Your task to perform on an android device: Empty the shopping cart on bestbuy.com. Search for amazon basics triple a on bestbuy.com, select the first entry, add it to the cart, then select checkout. Image 0: 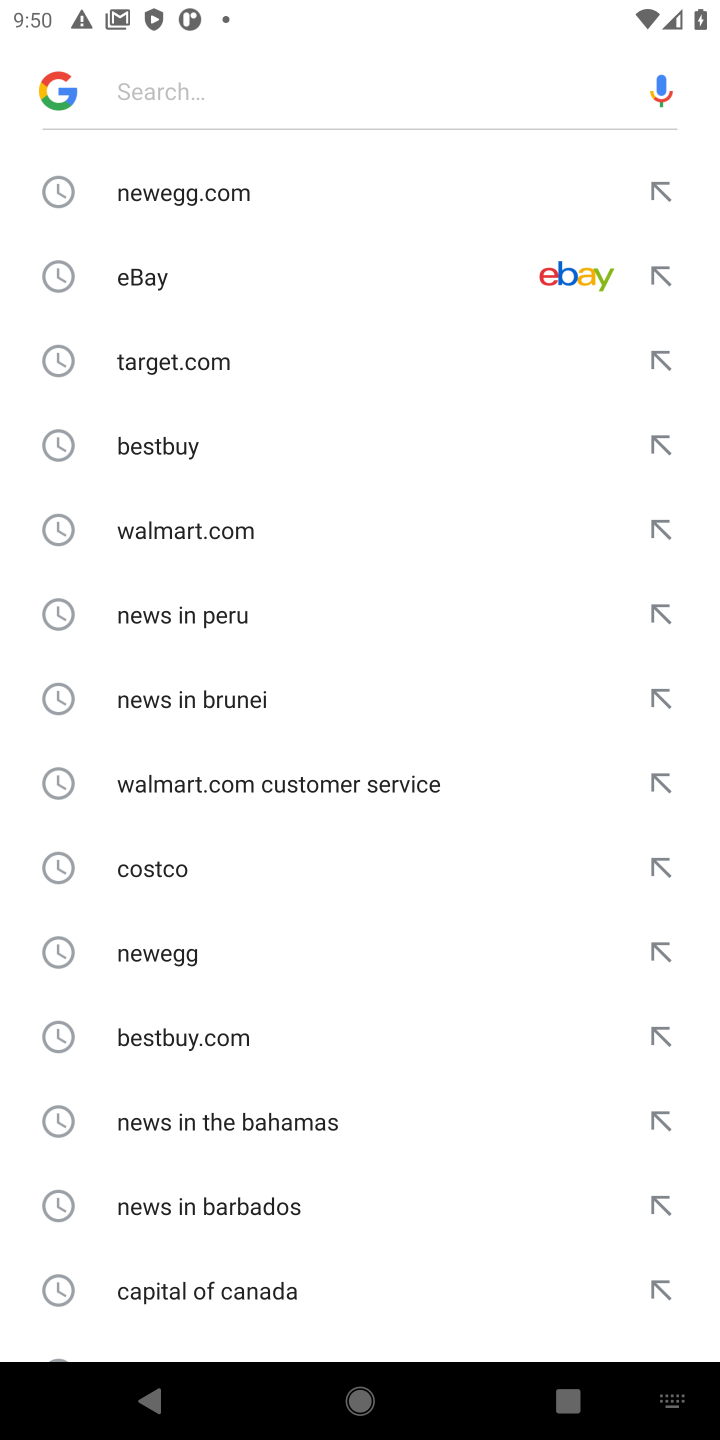
Step 0: click (146, 446)
Your task to perform on an android device: Empty the shopping cart on bestbuy.com. Search for amazon basics triple a on bestbuy.com, select the first entry, add it to the cart, then select checkout. Image 1: 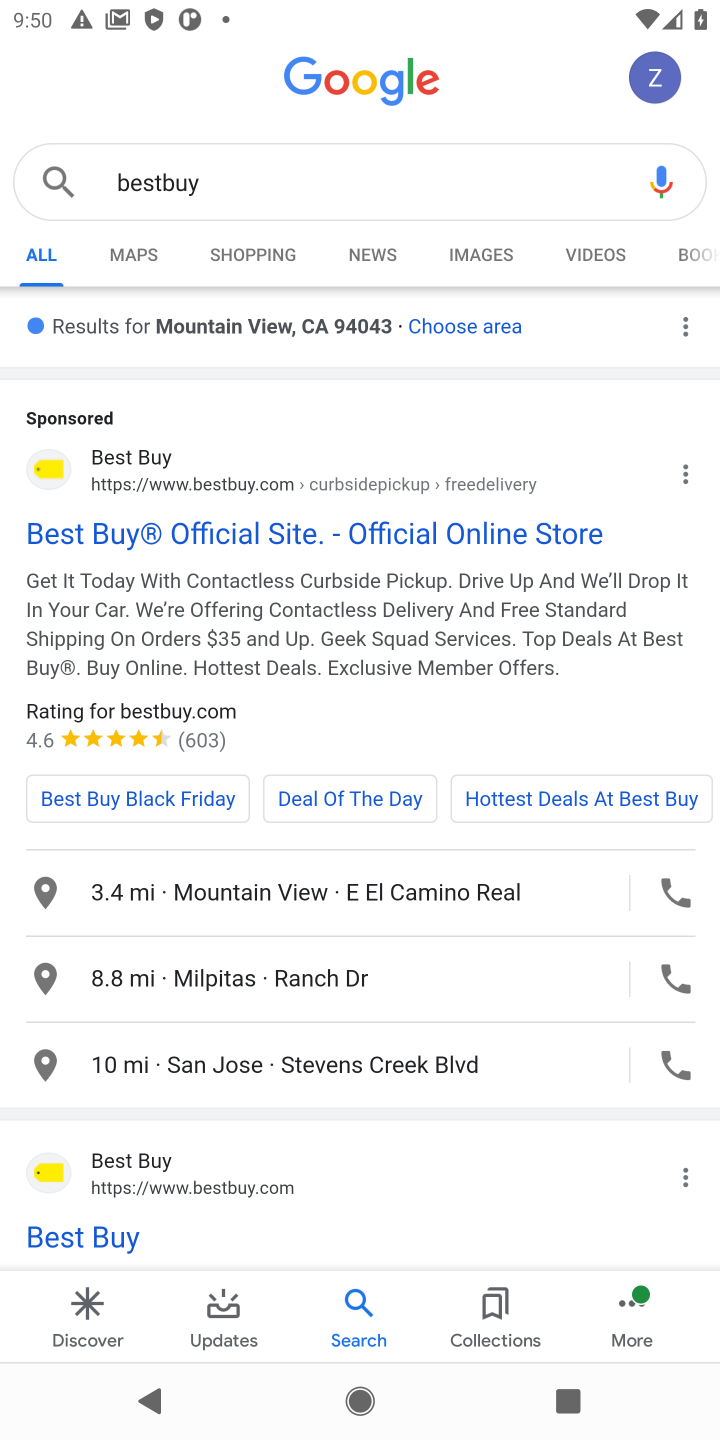
Step 1: click (218, 537)
Your task to perform on an android device: Empty the shopping cart on bestbuy.com. Search for amazon basics triple a on bestbuy.com, select the first entry, add it to the cart, then select checkout. Image 2: 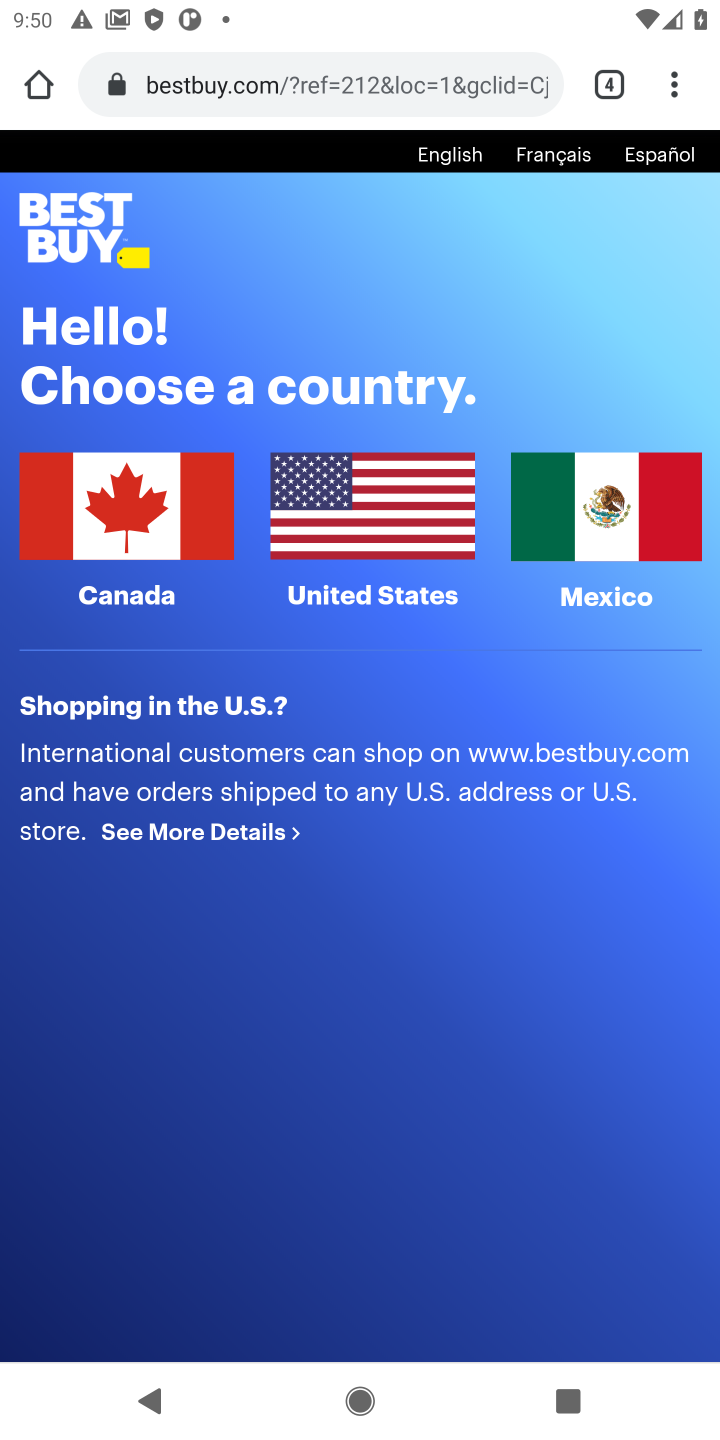
Step 2: click (337, 508)
Your task to perform on an android device: Empty the shopping cart on bestbuy.com. Search for amazon basics triple a on bestbuy.com, select the first entry, add it to the cart, then select checkout. Image 3: 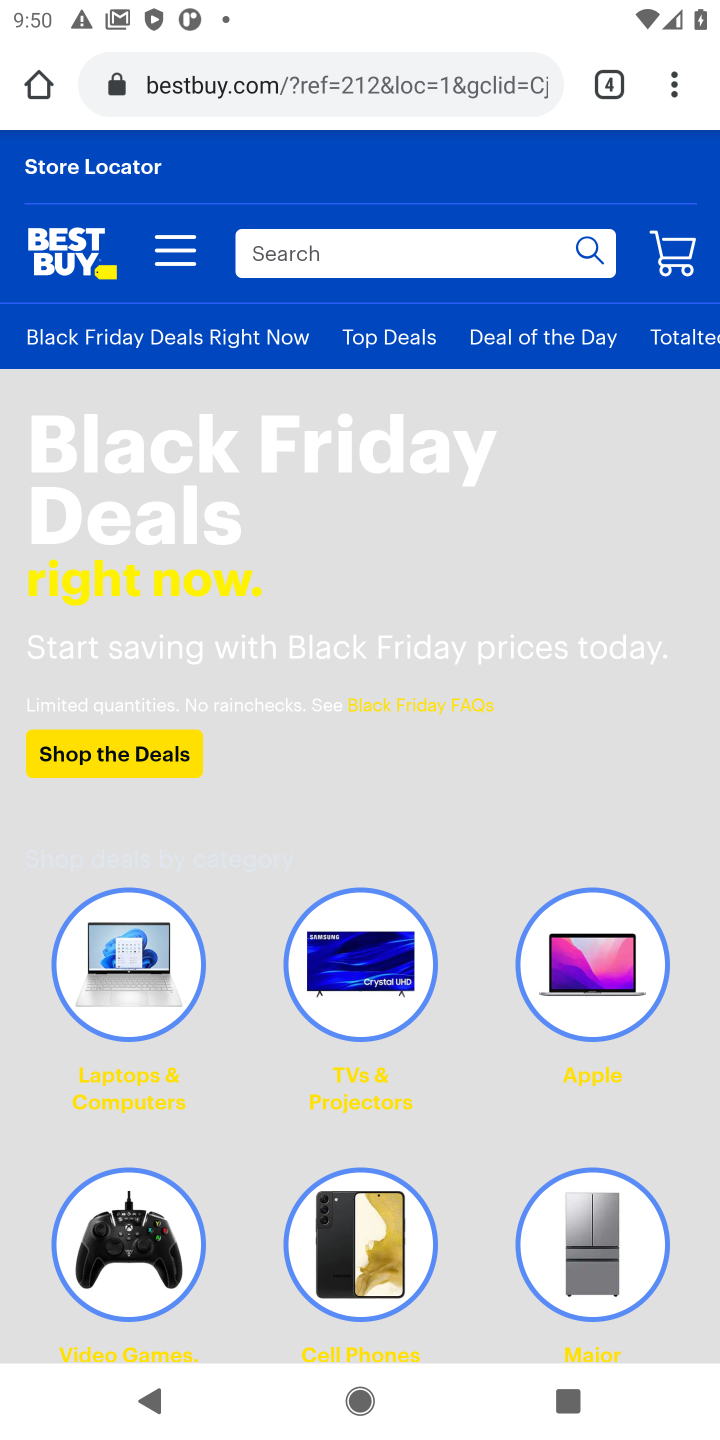
Step 3: click (340, 247)
Your task to perform on an android device: Empty the shopping cart on bestbuy.com. Search for amazon basics triple a on bestbuy.com, select the first entry, add it to the cart, then select checkout. Image 4: 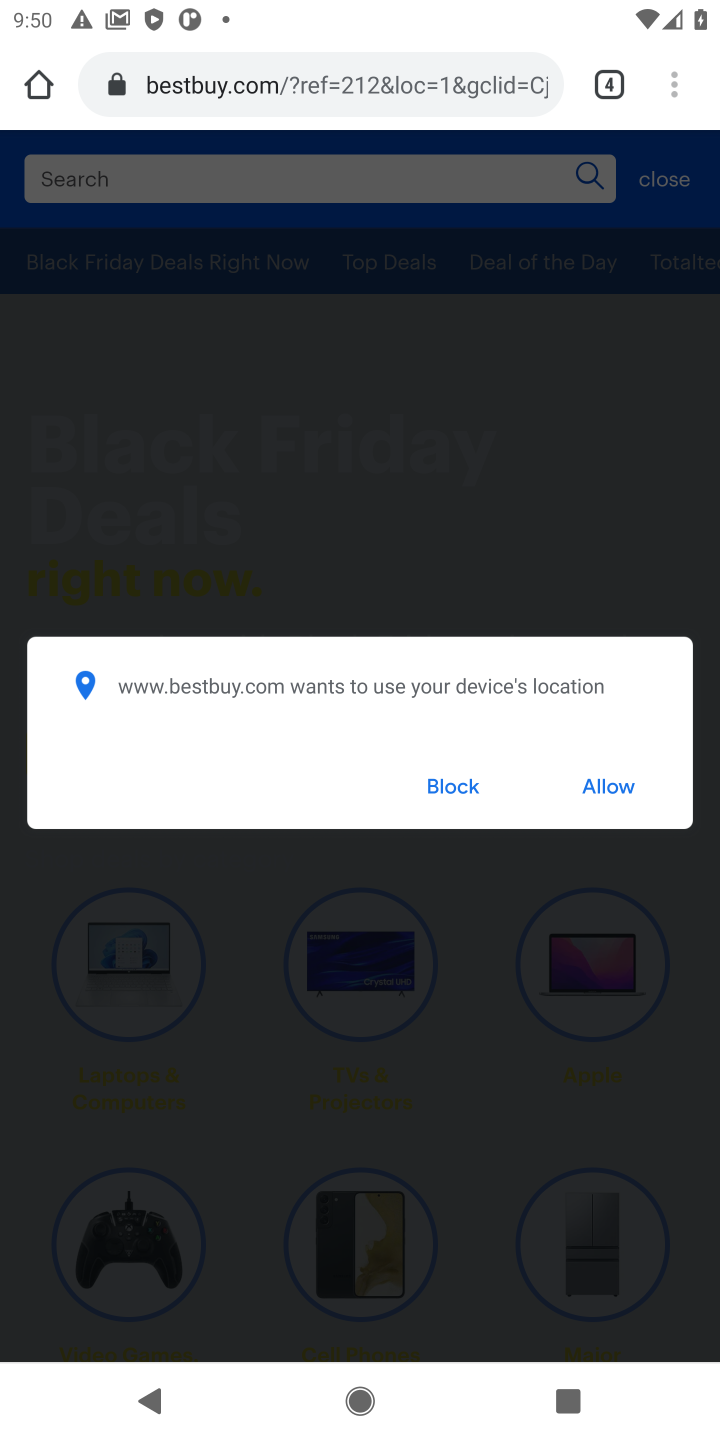
Step 4: click (597, 782)
Your task to perform on an android device: Empty the shopping cart on bestbuy.com. Search for amazon basics triple a on bestbuy.com, select the first entry, add it to the cart, then select checkout. Image 5: 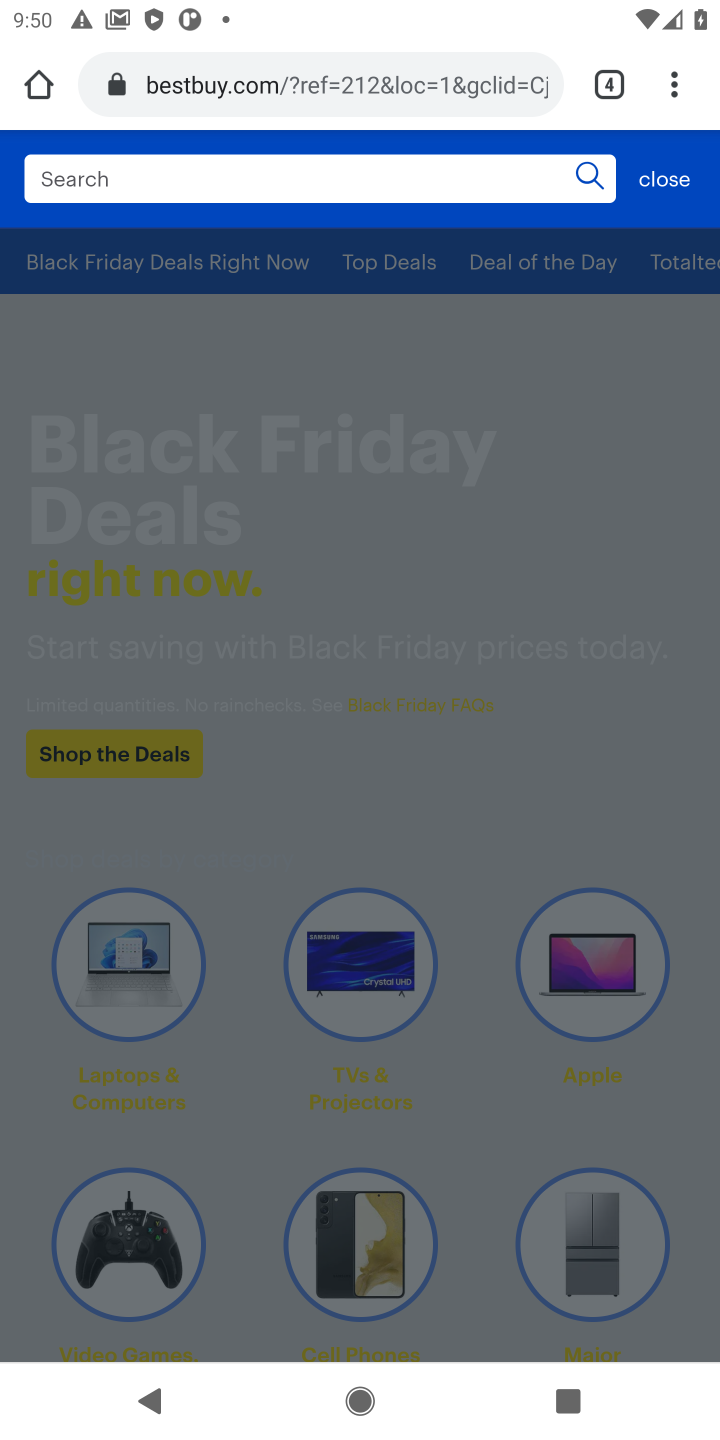
Step 5: click (652, 181)
Your task to perform on an android device: Empty the shopping cart on bestbuy.com. Search for amazon basics triple a on bestbuy.com, select the first entry, add it to the cart, then select checkout. Image 6: 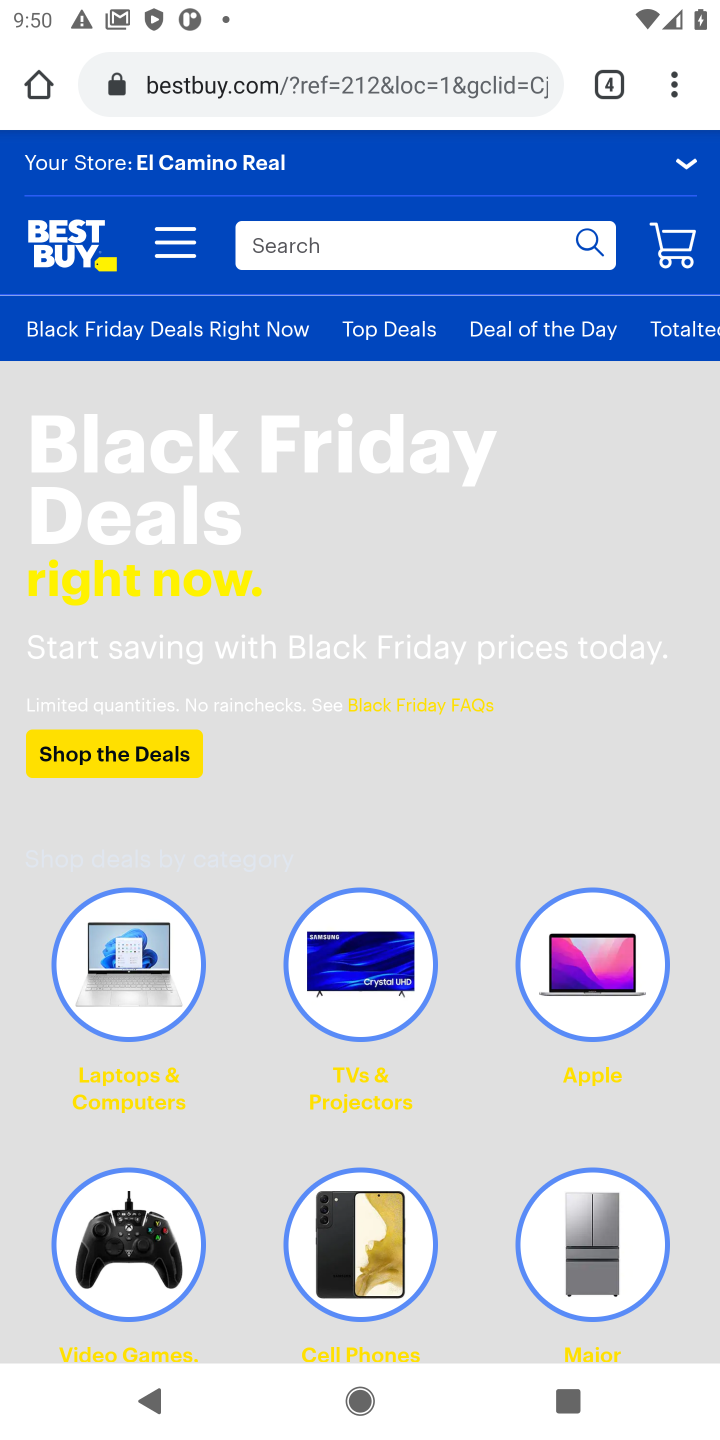
Step 6: click (321, 248)
Your task to perform on an android device: Empty the shopping cart on bestbuy.com. Search for amazon basics triple a on bestbuy.com, select the first entry, add it to the cart, then select checkout. Image 7: 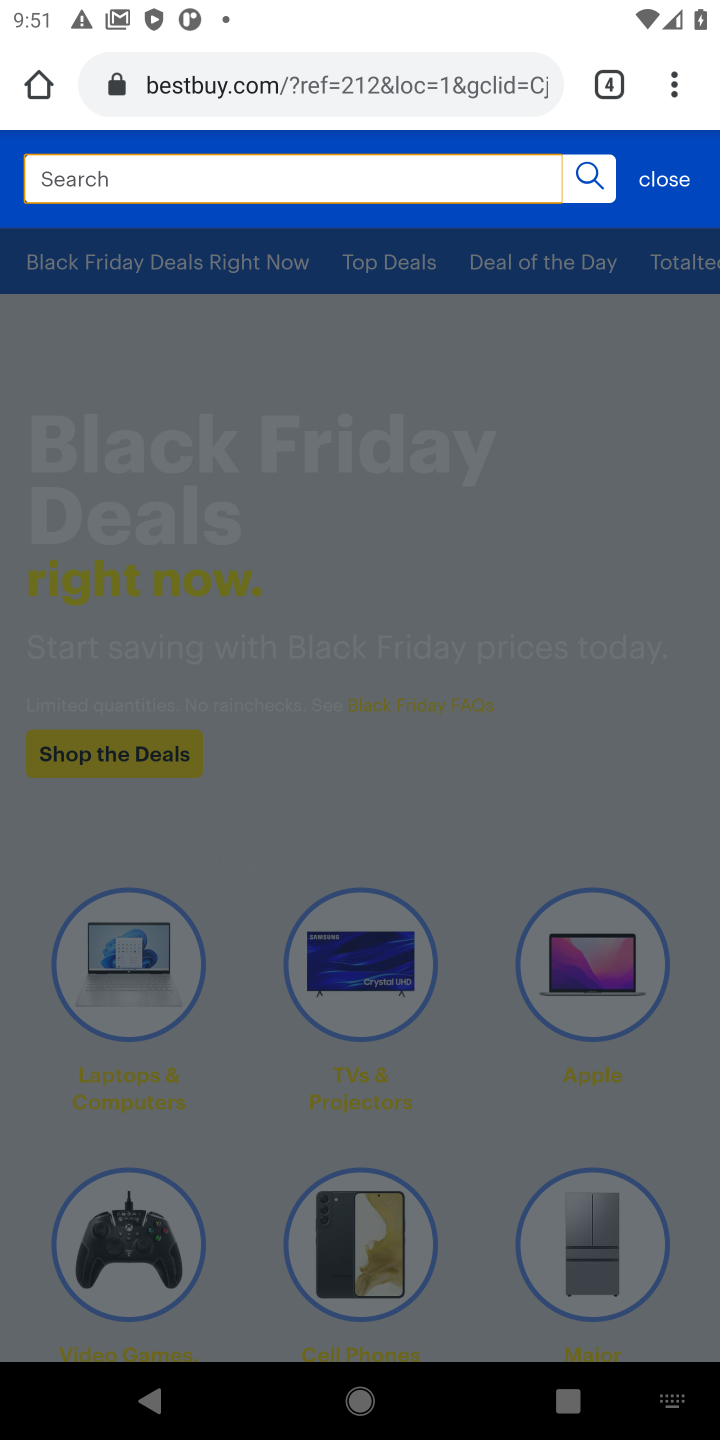
Step 7: type "amazon basics triple a"
Your task to perform on an android device: Empty the shopping cart on bestbuy.com. Search for amazon basics triple a on bestbuy.com, select the first entry, add it to the cart, then select checkout. Image 8: 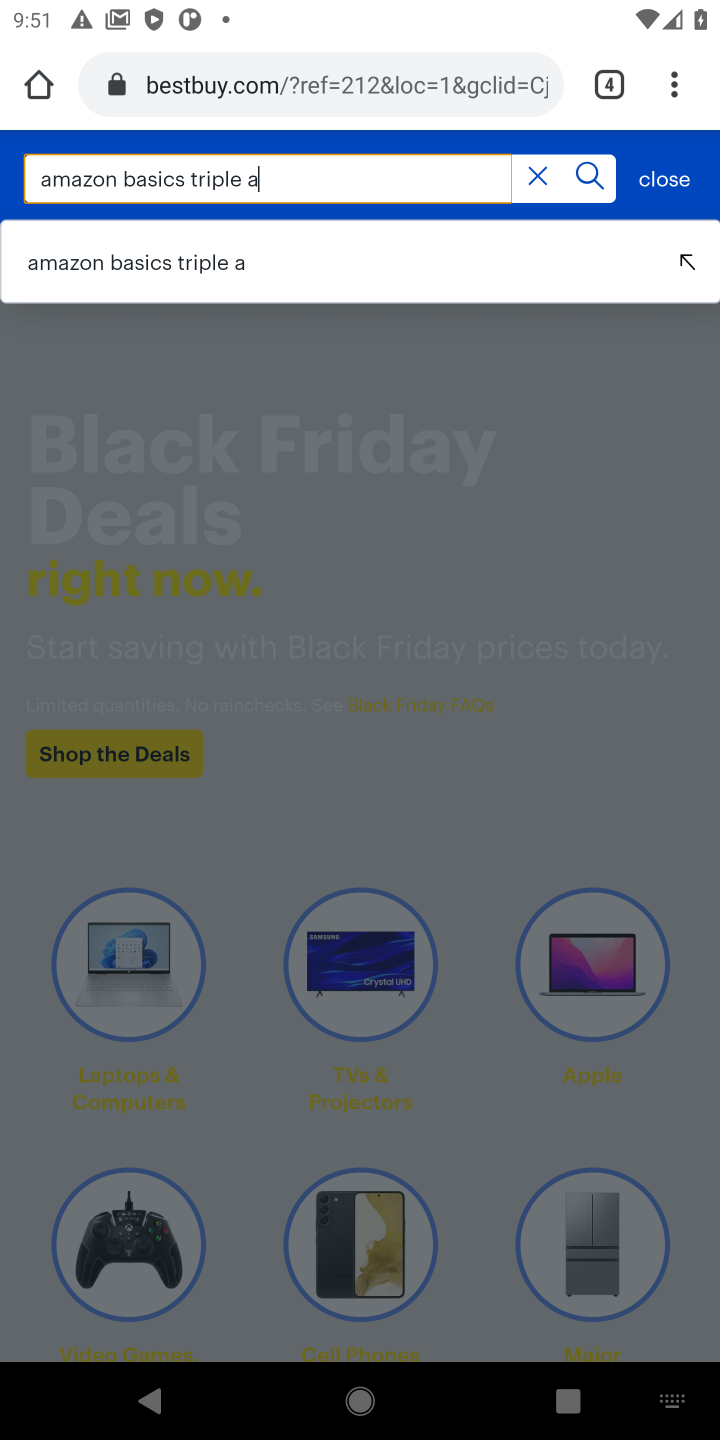
Step 8: click (251, 265)
Your task to perform on an android device: Empty the shopping cart on bestbuy.com. Search for amazon basics triple a on bestbuy.com, select the first entry, add it to the cart, then select checkout. Image 9: 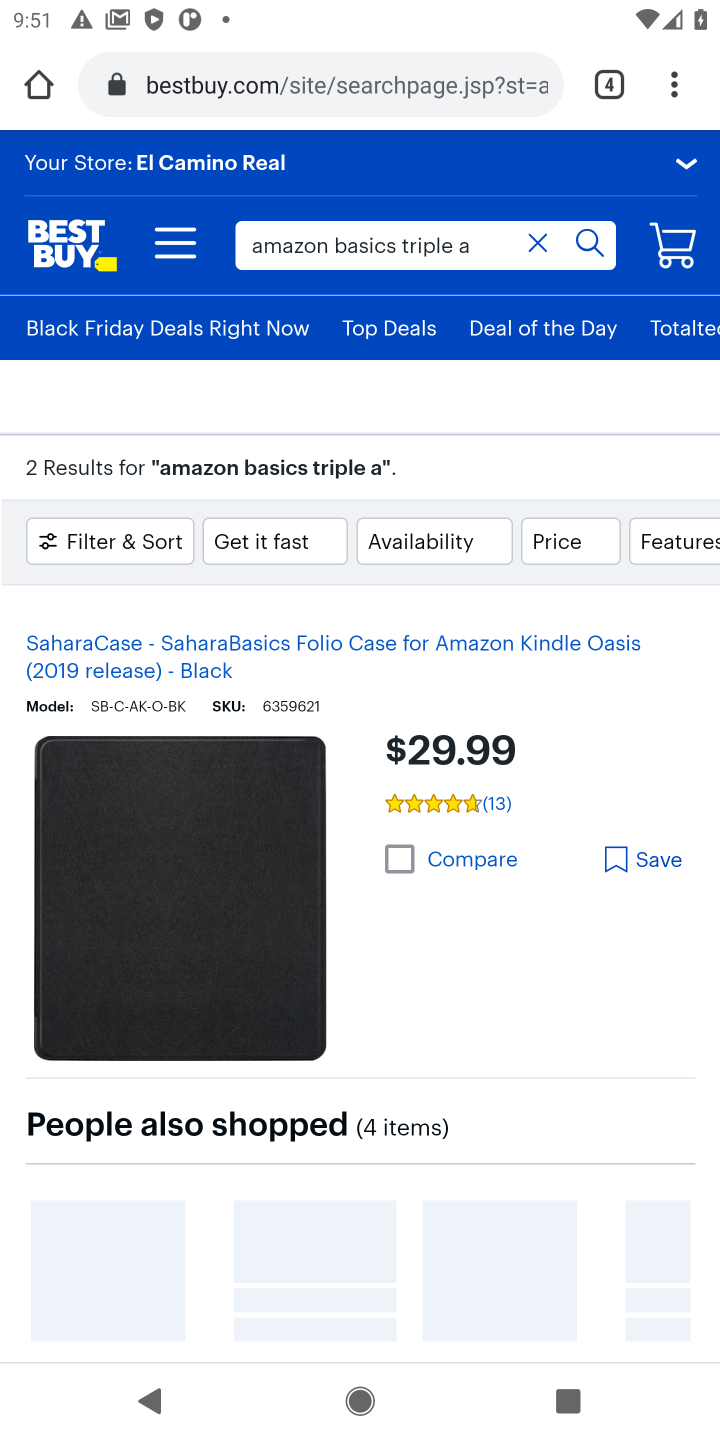
Step 9: click (463, 759)
Your task to perform on an android device: Empty the shopping cart on bestbuy.com. Search for amazon basics triple a on bestbuy.com, select the first entry, add it to the cart, then select checkout. Image 10: 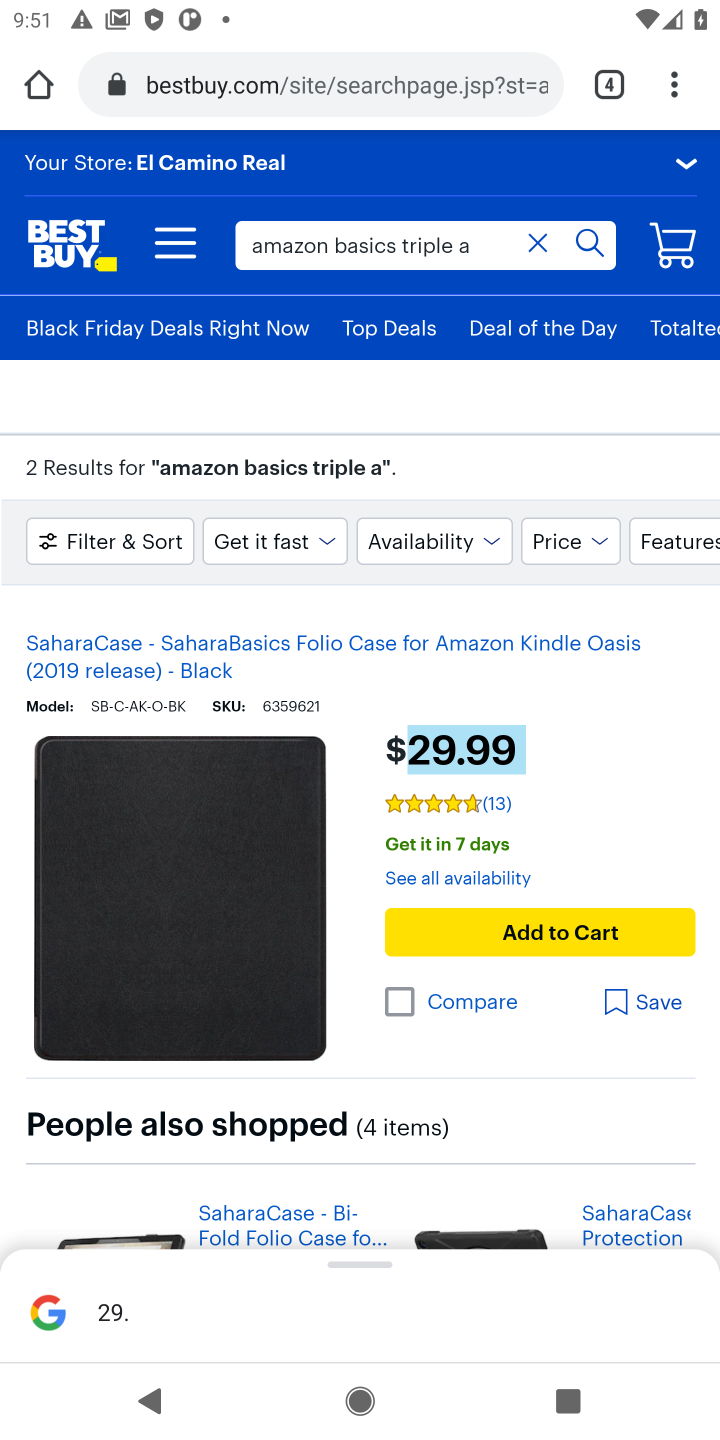
Step 10: click (515, 930)
Your task to perform on an android device: Empty the shopping cart on bestbuy.com. Search for amazon basics triple a on bestbuy.com, select the first entry, add it to the cart, then select checkout. Image 11: 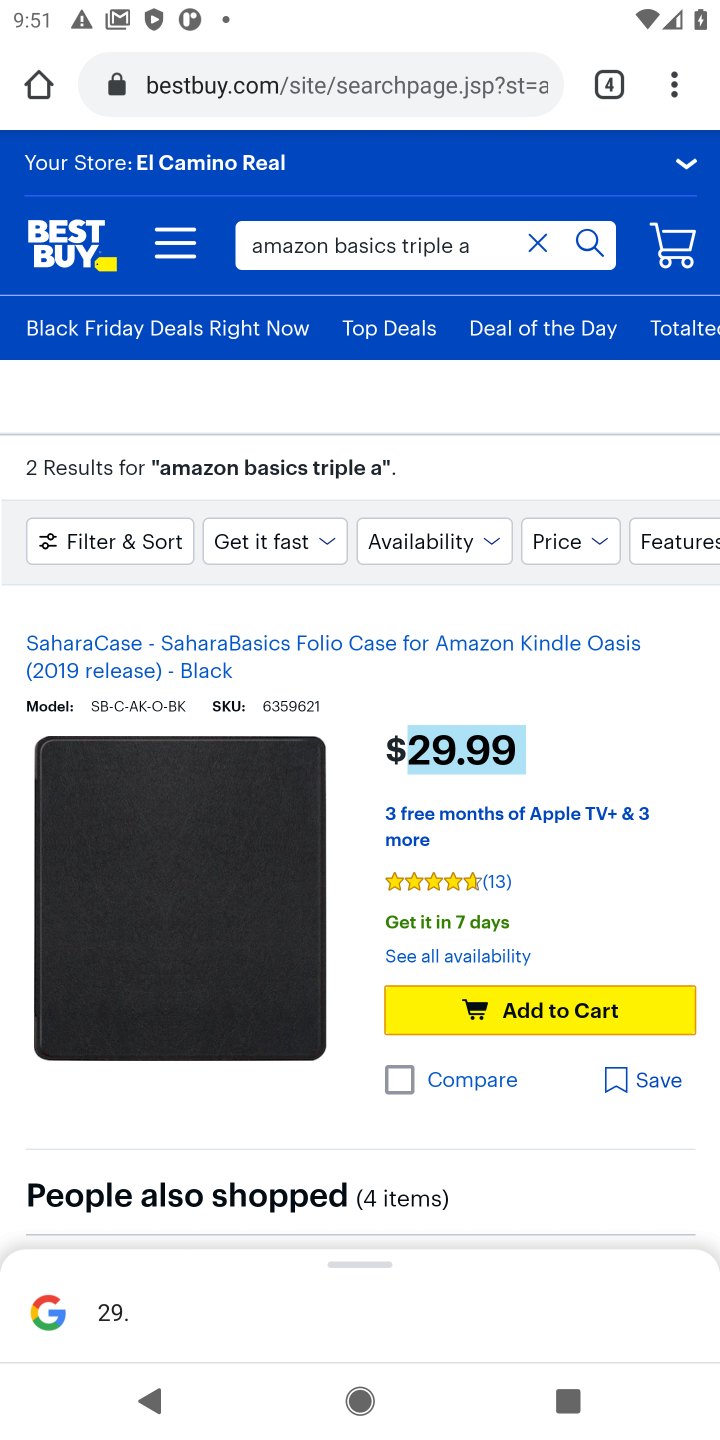
Step 11: click (513, 929)
Your task to perform on an android device: Empty the shopping cart on bestbuy.com. Search for amazon basics triple a on bestbuy.com, select the first entry, add it to the cart, then select checkout. Image 12: 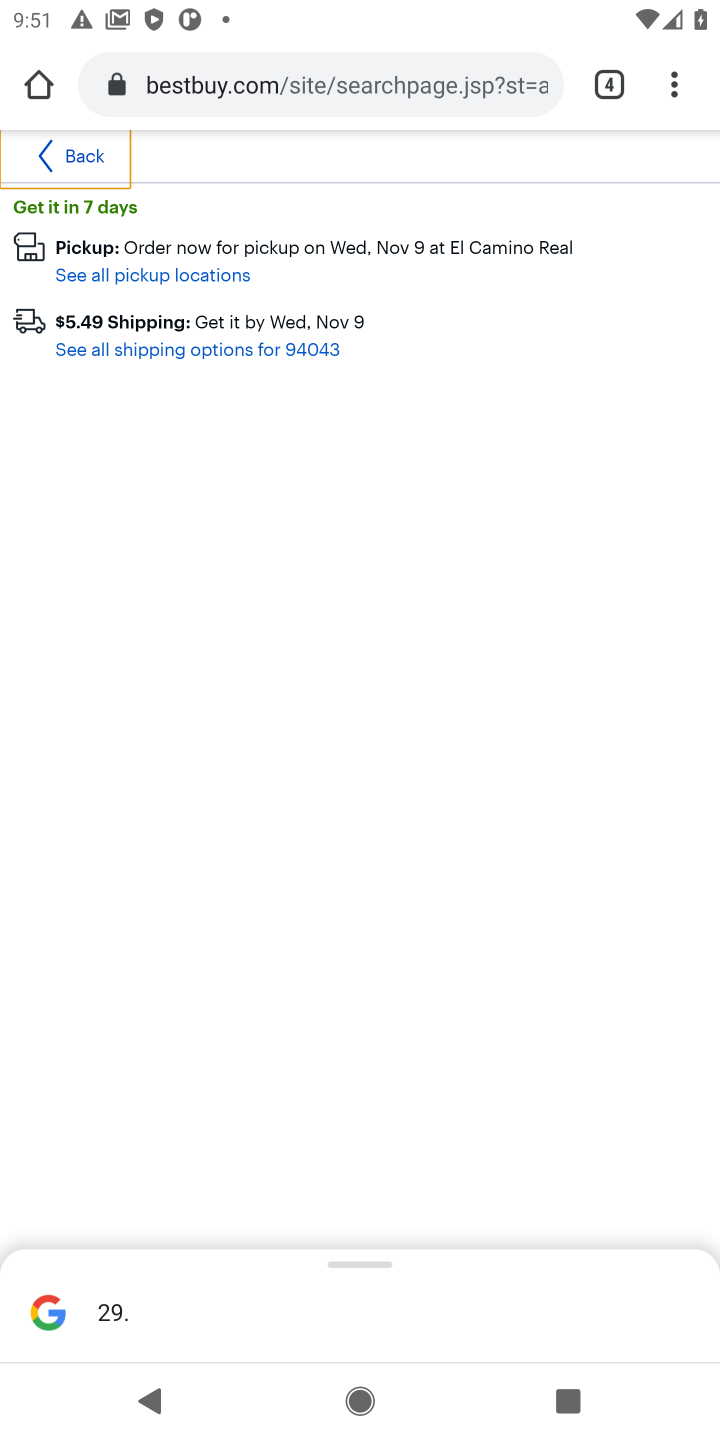
Step 12: click (63, 150)
Your task to perform on an android device: Empty the shopping cart on bestbuy.com. Search for amazon basics triple a on bestbuy.com, select the first entry, add it to the cart, then select checkout. Image 13: 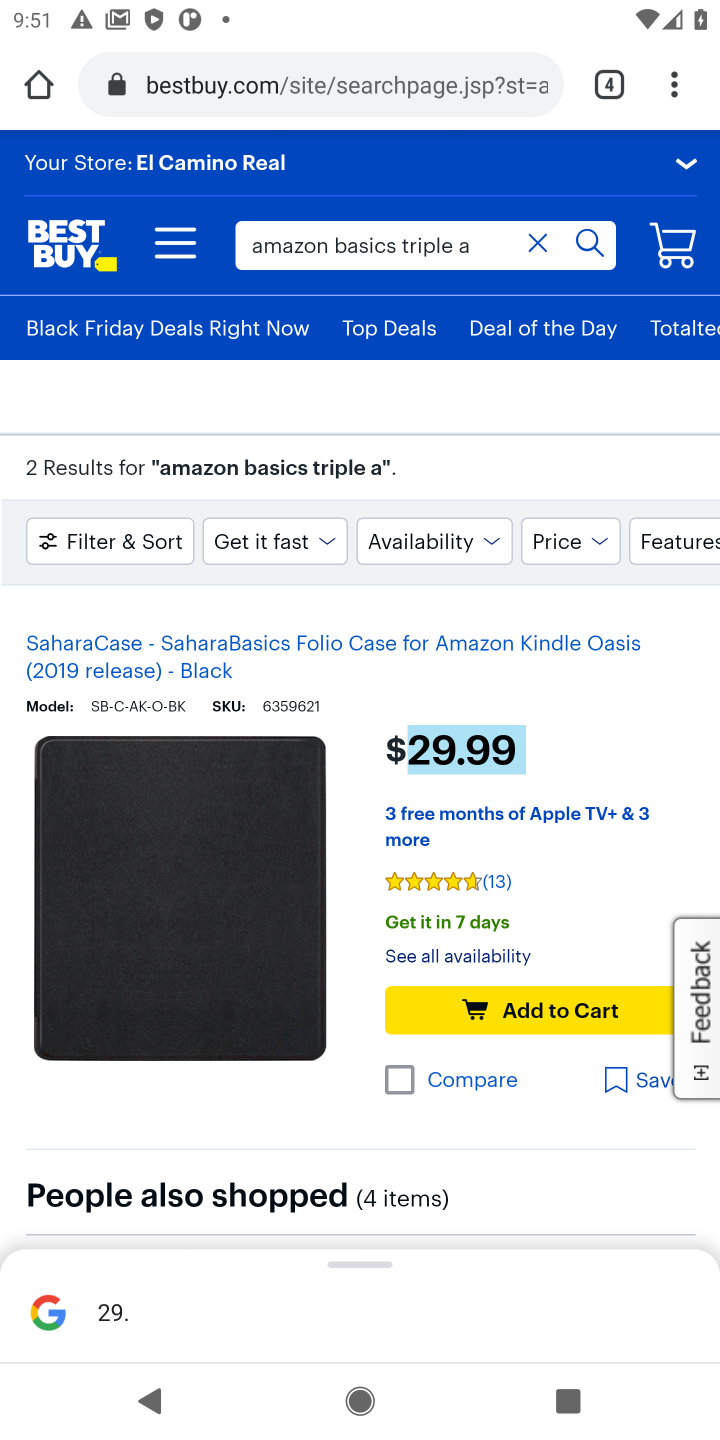
Step 13: click (484, 1009)
Your task to perform on an android device: Empty the shopping cart on bestbuy.com. Search for amazon basics triple a on bestbuy.com, select the first entry, add it to the cart, then select checkout. Image 14: 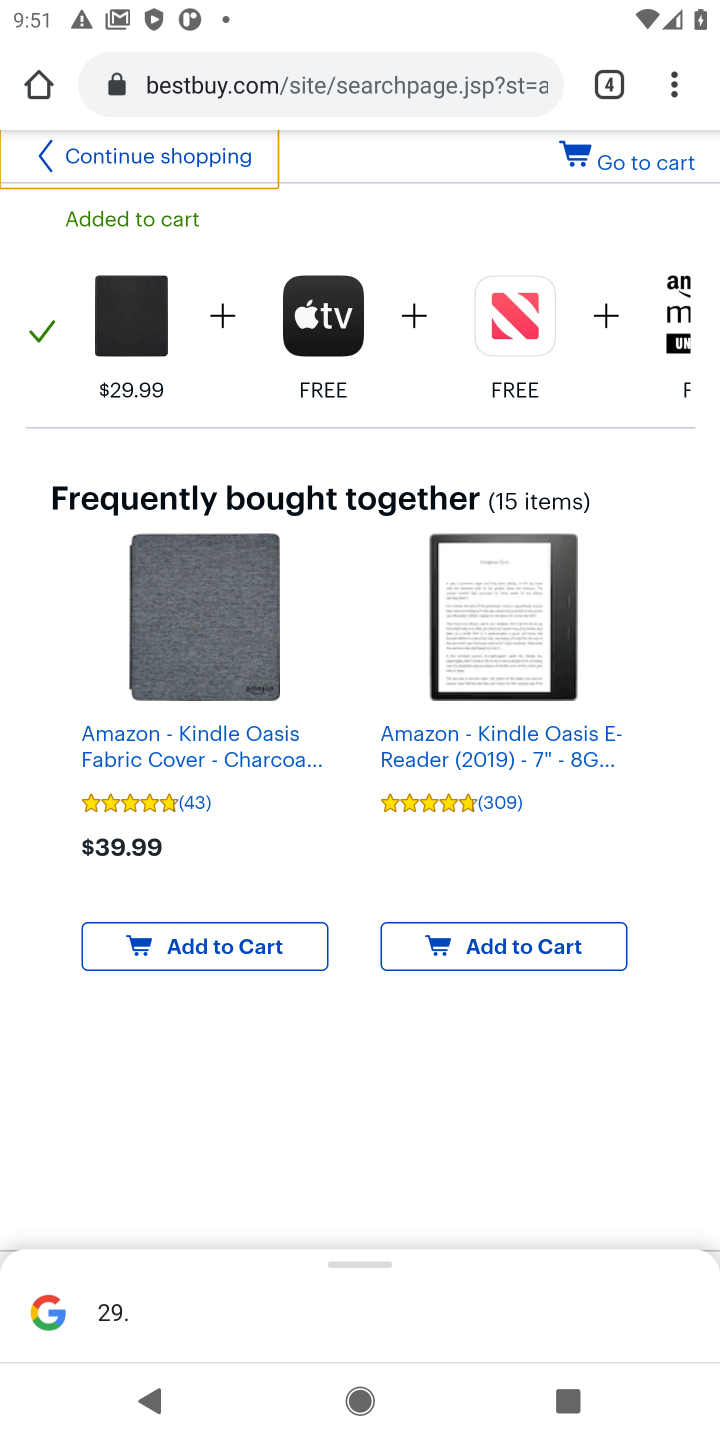
Step 14: click (610, 155)
Your task to perform on an android device: Empty the shopping cart on bestbuy.com. Search for amazon basics triple a on bestbuy.com, select the first entry, add it to the cart, then select checkout. Image 15: 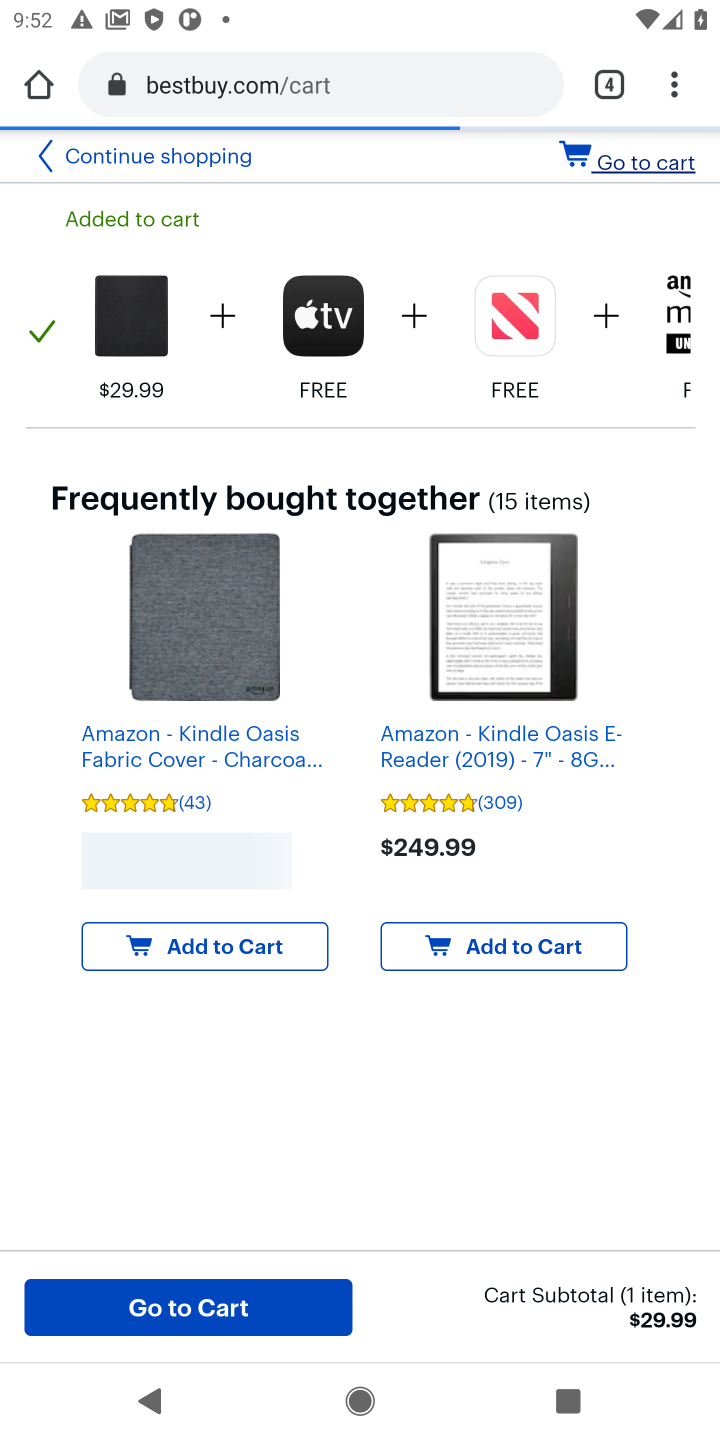
Step 15: click (191, 1309)
Your task to perform on an android device: Empty the shopping cart on bestbuy.com. Search for amazon basics triple a on bestbuy.com, select the first entry, add it to the cart, then select checkout. Image 16: 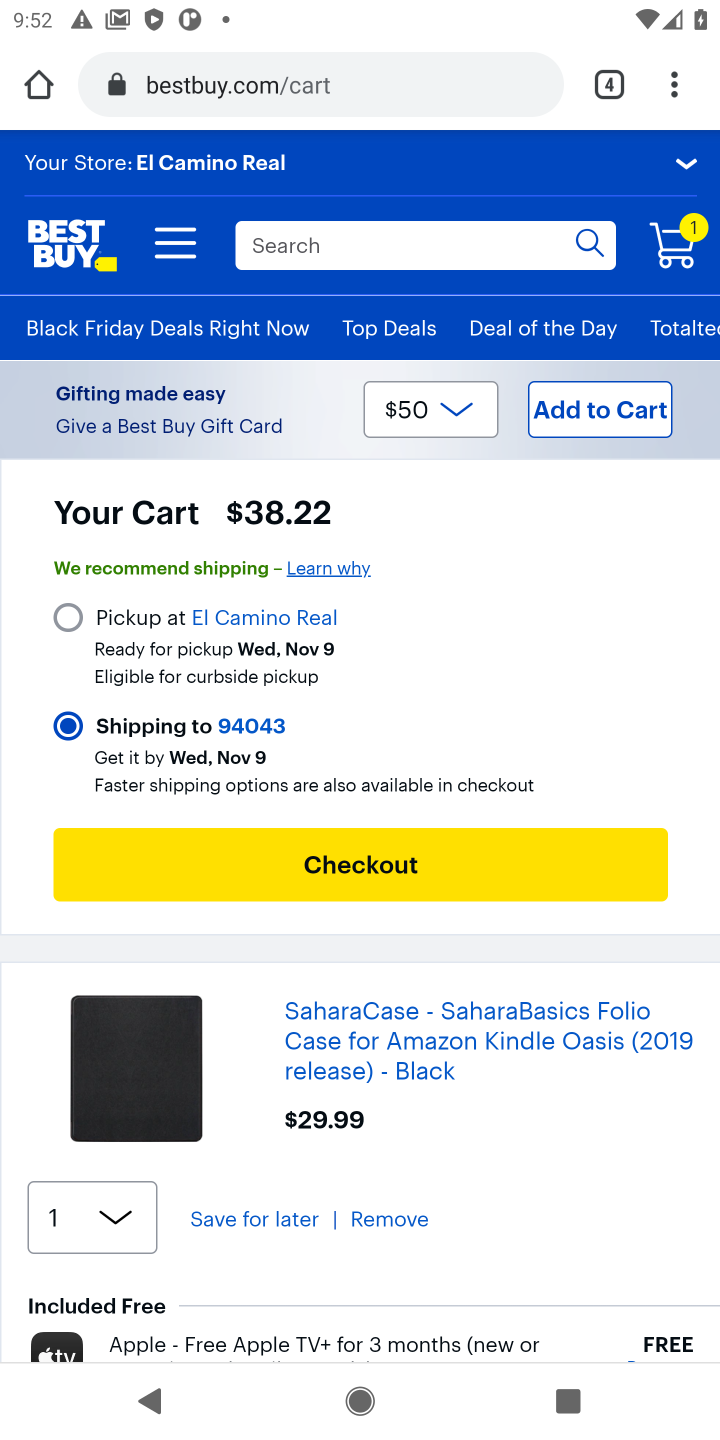
Step 16: click (339, 870)
Your task to perform on an android device: Empty the shopping cart on bestbuy.com. Search for amazon basics triple a on bestbuy.com, select the first entry, add it to the cart, then select checkout. Image 17: 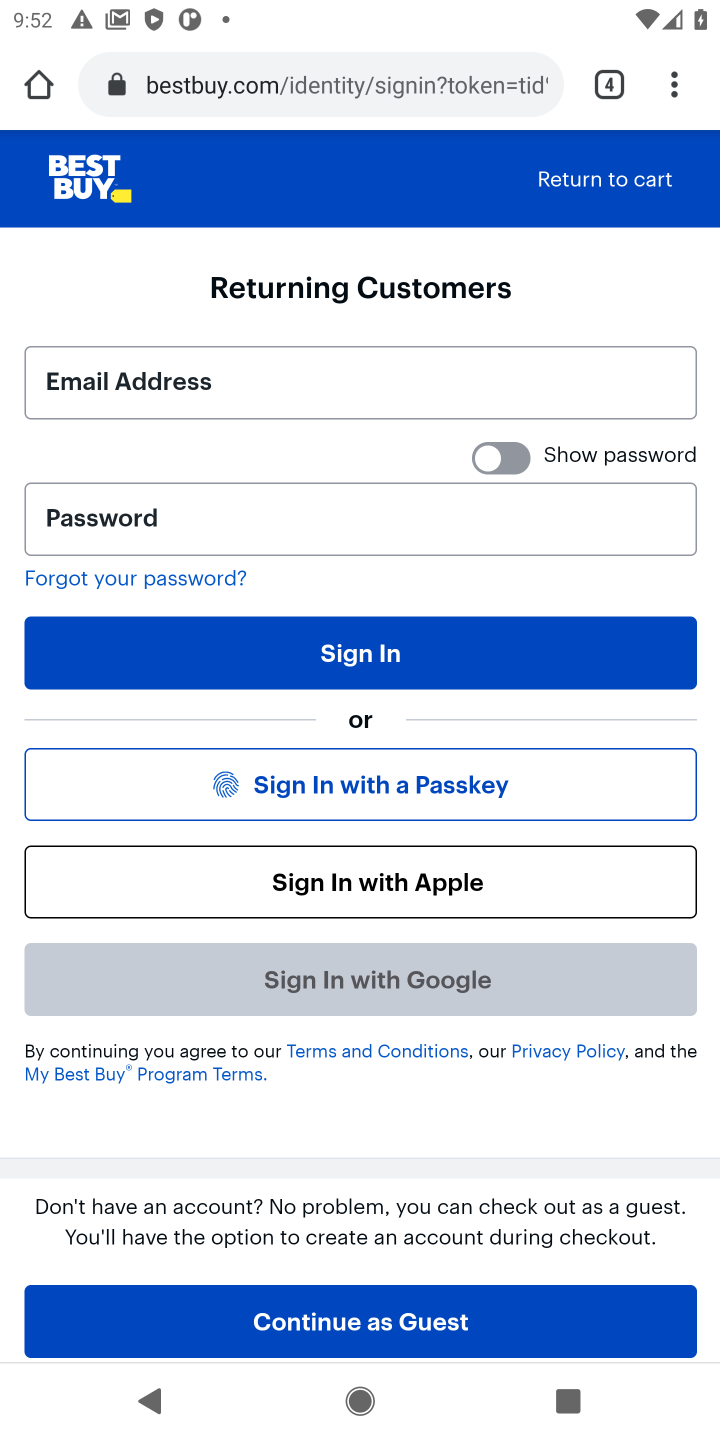
Step 17: task complete